Your task to perform on an android device: Is it going to rain this weekend? Image 0: 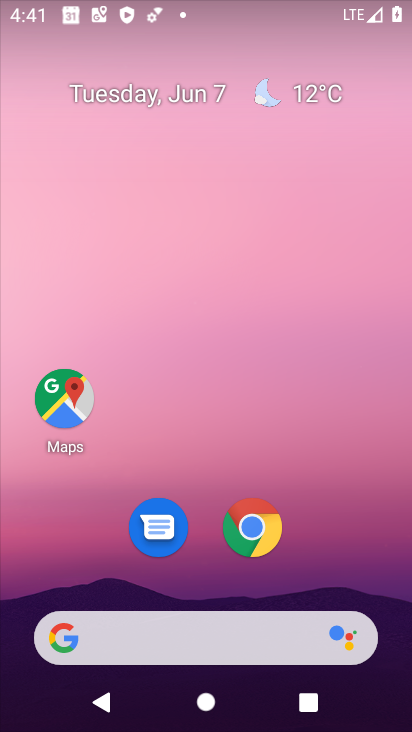
Step 0: drag from (339, 555) to (260, 118)
Your task to perform on an android device: Is it going to rain this weekend? Image 1: 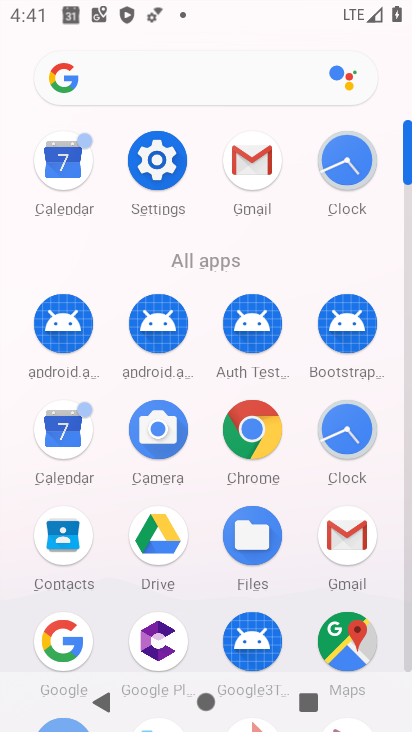
Step 1: click (57, 639)
Your task to perform on an android device: Is it going to rain this weekend? Image 2: 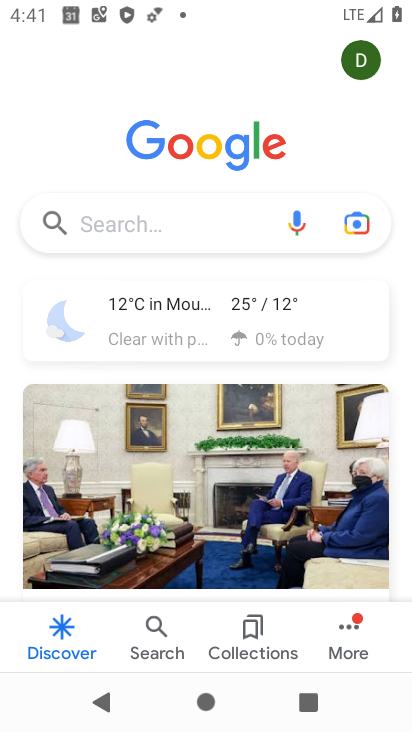
Step 2: click (181, 304)
Your task to perform on an android device: Is it going to rain this weekend? Image 3: 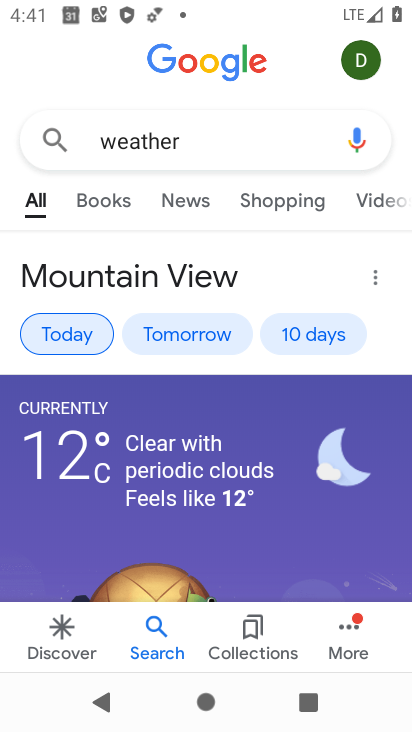
Step 3: click (303, 327)
Your task to perform on an android device: Is it going to rain this weekend? Image 4: 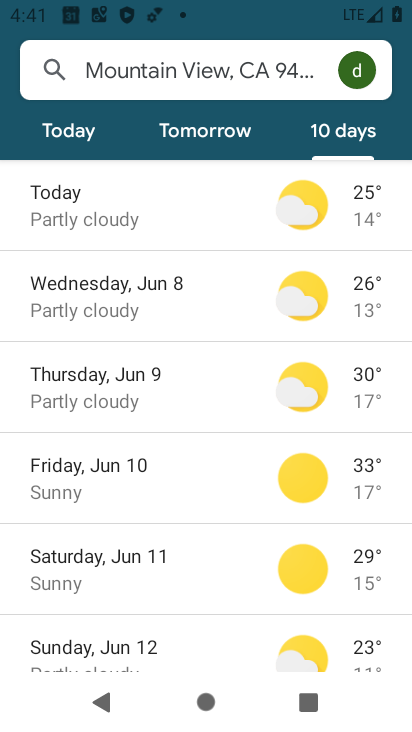
Step 4: task complete